Your task to perform on an android device: What's on my calendar tomorrow? Image 0: 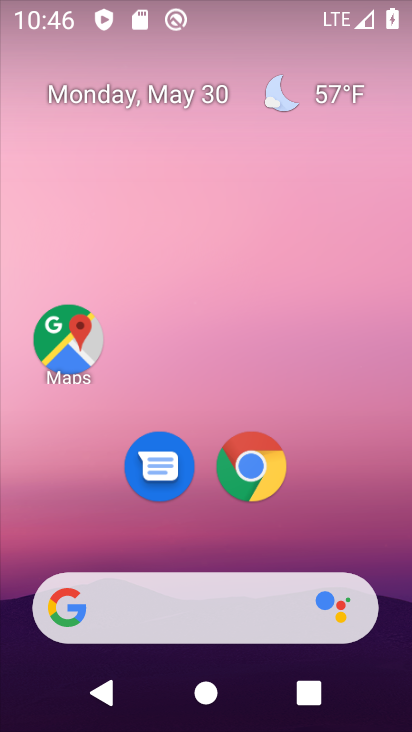
Step 0: press home button
Your task to perform on an android device: What's on my calendar tomorrow? Image 1: 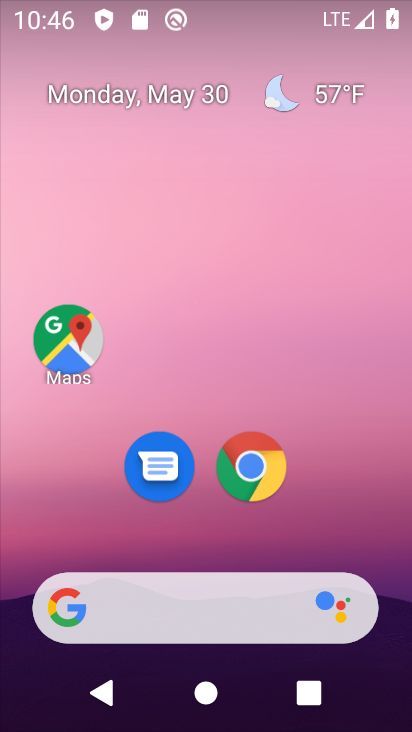
Step 1: drag from (352, 442) to (308, 134)
Your task to perform on an android device: What's on my calendar tomorrow? Image 2: 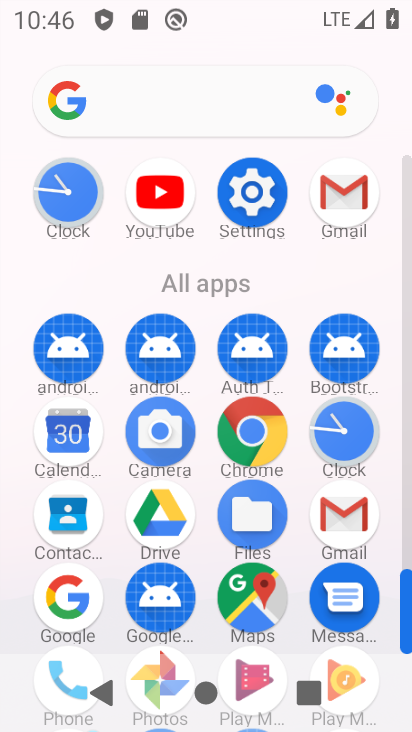
Step 2: click (71, 427)
Your task to perform on an android device: What's on my calendar tomorrow? Image 3: 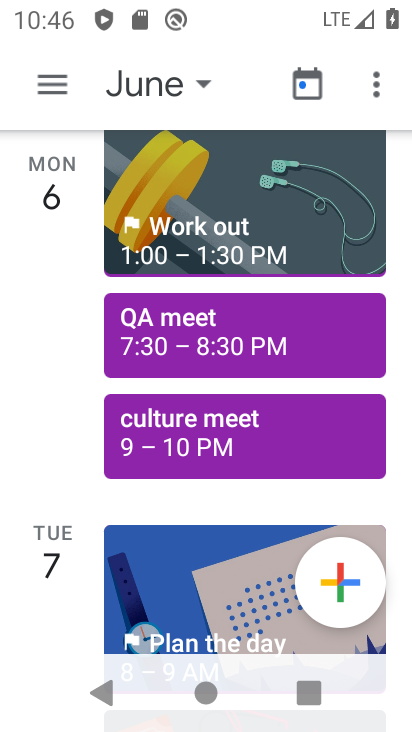
Step 3: click (203, 77)
Your task to perform on an android device: What's on my calendar tomorrow? Image 4: 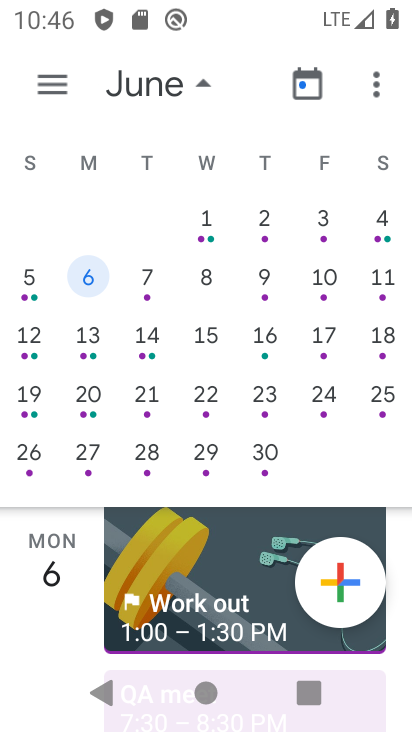
Step 4: drag from (99, 221) to (402, 229)
Your task to perform on an android device: What's on my calendar tomorrow? Image 5: 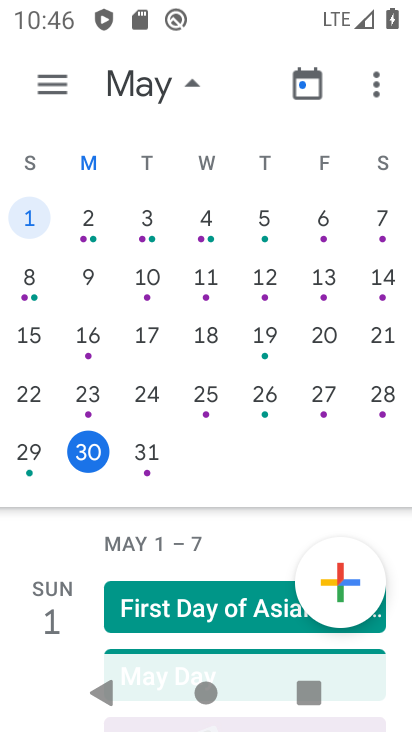
Step 5: click (95, 449)
Your task to perform on an android device: What's on my calendar tomorrow? Image 6: 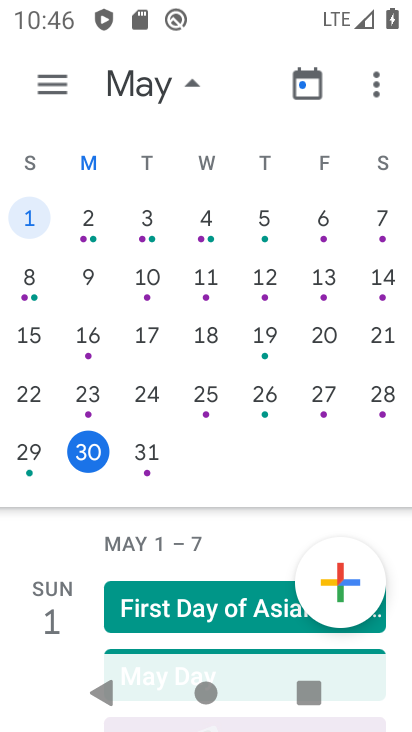
Step 6: click (143, 449)
Your task to perform on an android device: What's on my calendar tomorrow? Image 7: 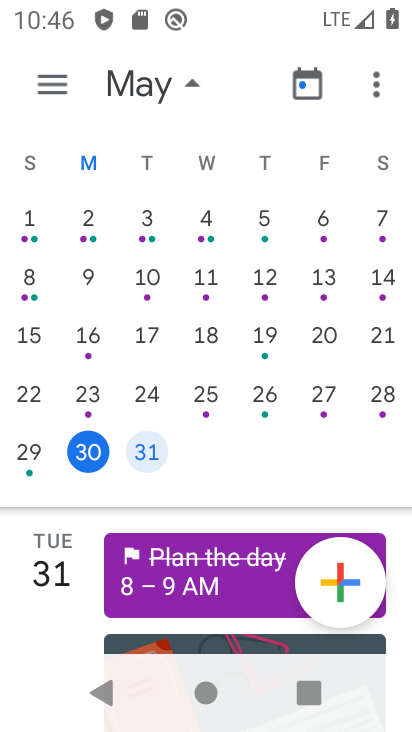
Step 7: task complete